Your task to perform on an android device: uninstall "Adobe Acrobat Reader: Edit PDF" Image 0: 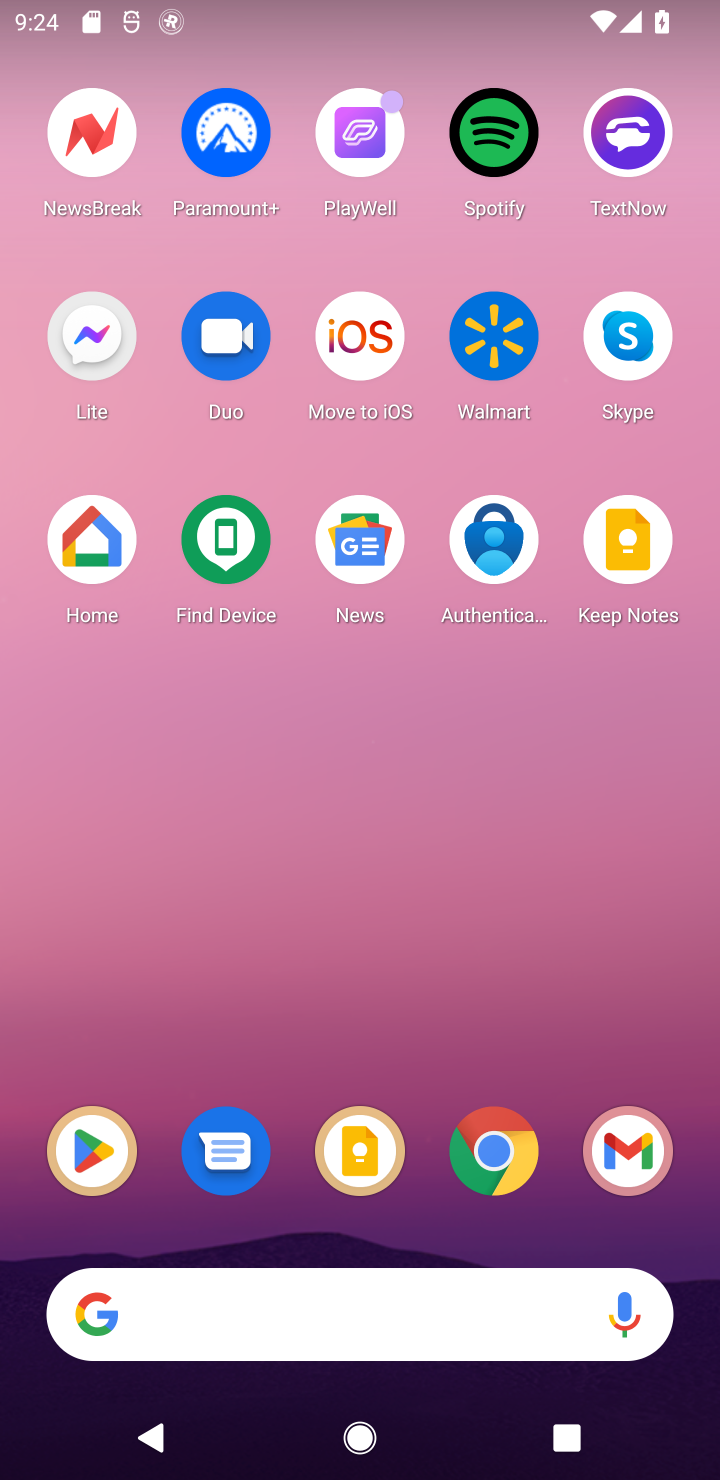
Step 0: click (103, 1127)
Your task to perform on an android device: uninstall "Adobe Acrobat Reader: Edit PDF" Image 1: 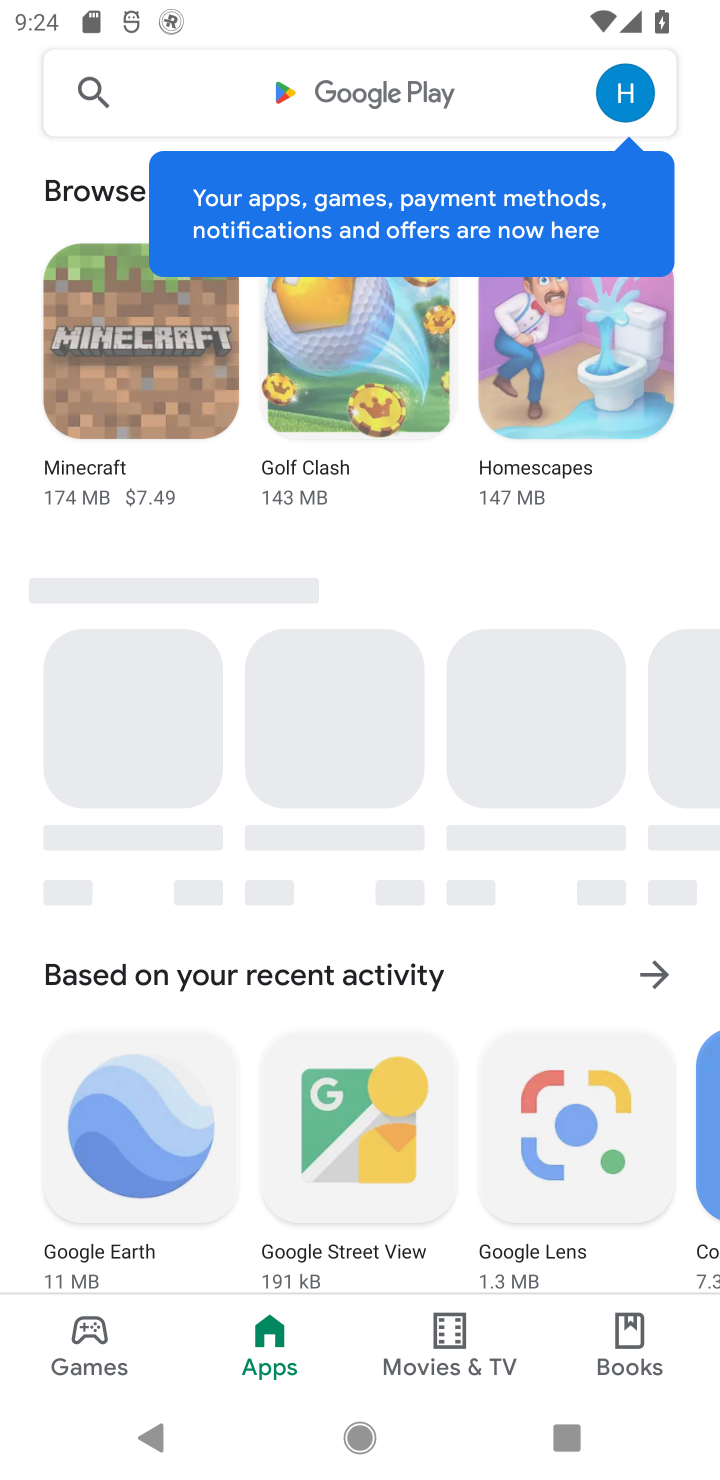
Step 1: click (465, 116)
Your task to perform on an android device: uninstall "Adobe Acrobat Reader: Edit PDF" Image 2: 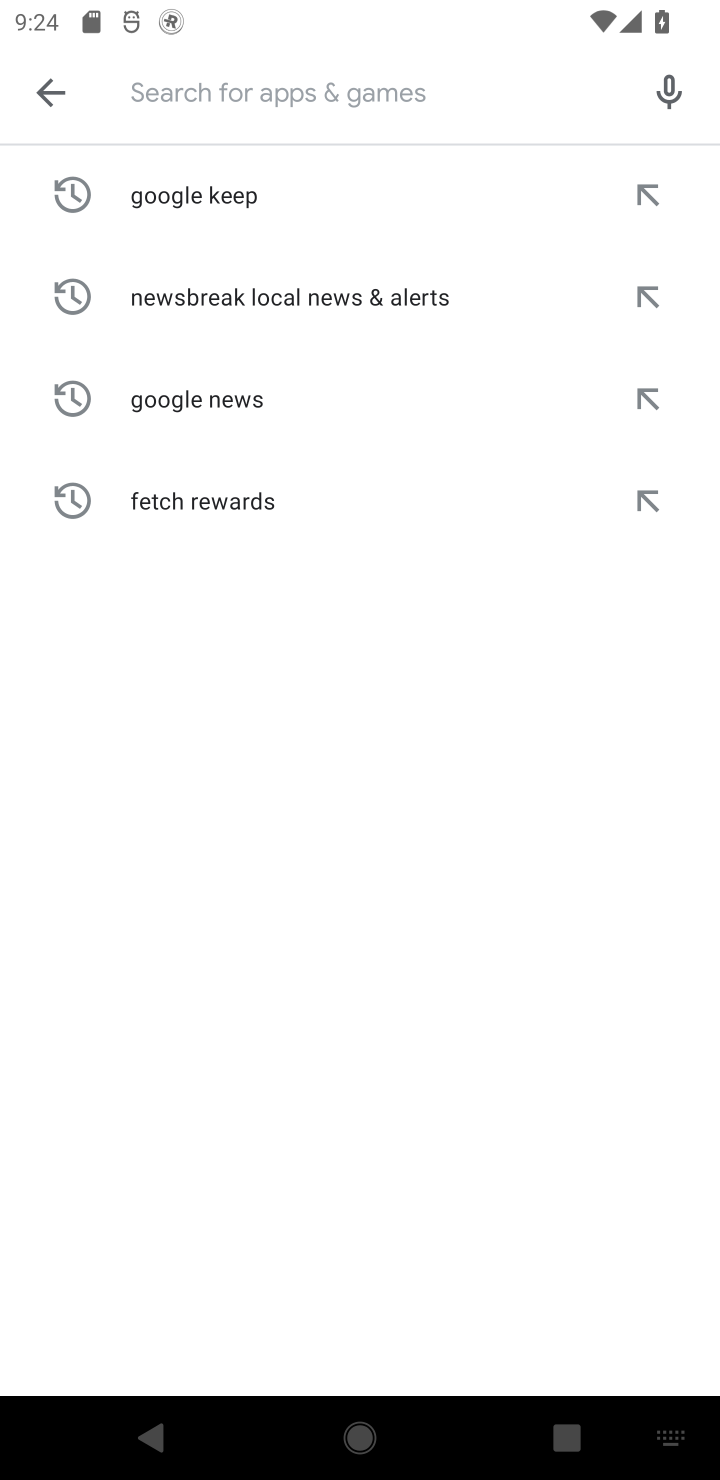
Step 2: type "Adobe Acrobat Reader: Edit PDF"
Your task to perform on an android device: uninstall "Adobe Acrobat Reader: Edit PDF" Image 3: 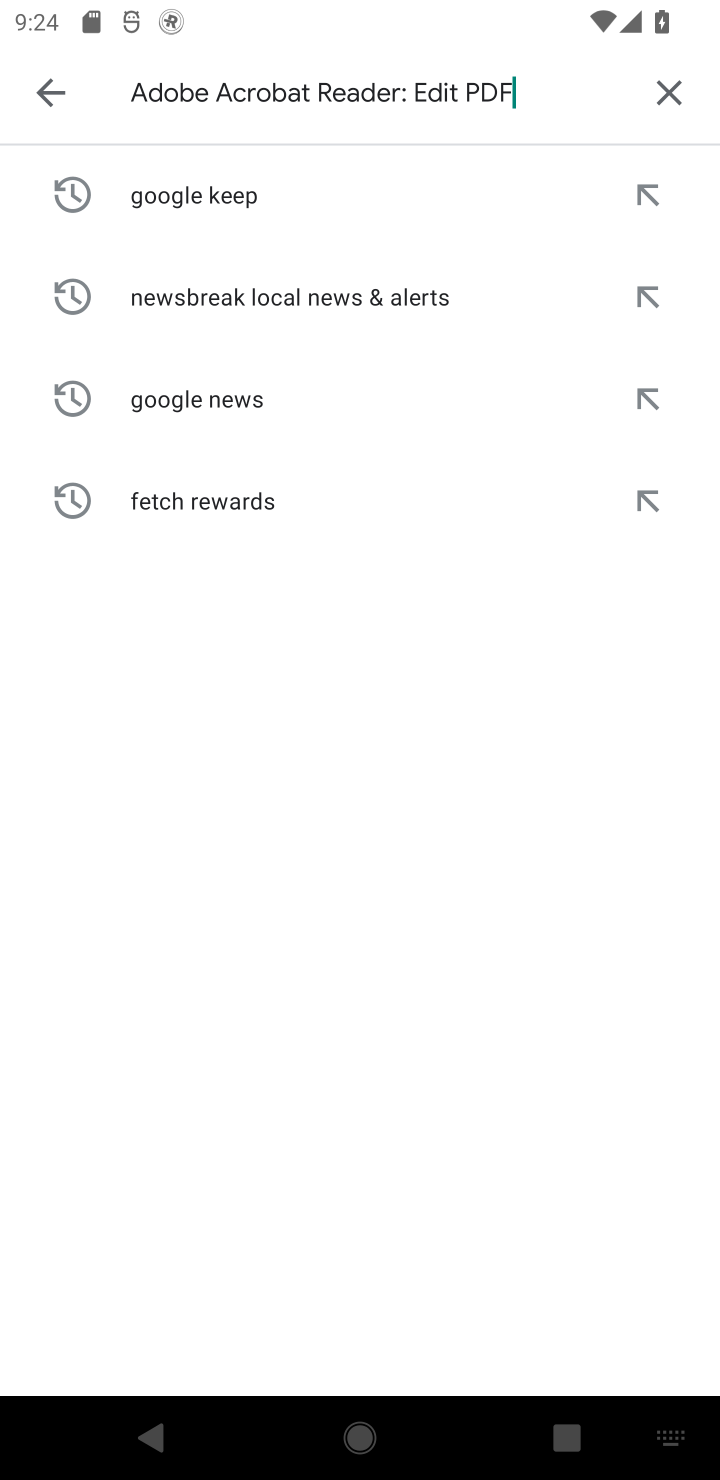
Step 3: type ""
Your task to perform on an android device: uninstall "Adobe Acrobat Reader: Edit PDF" Image 4: 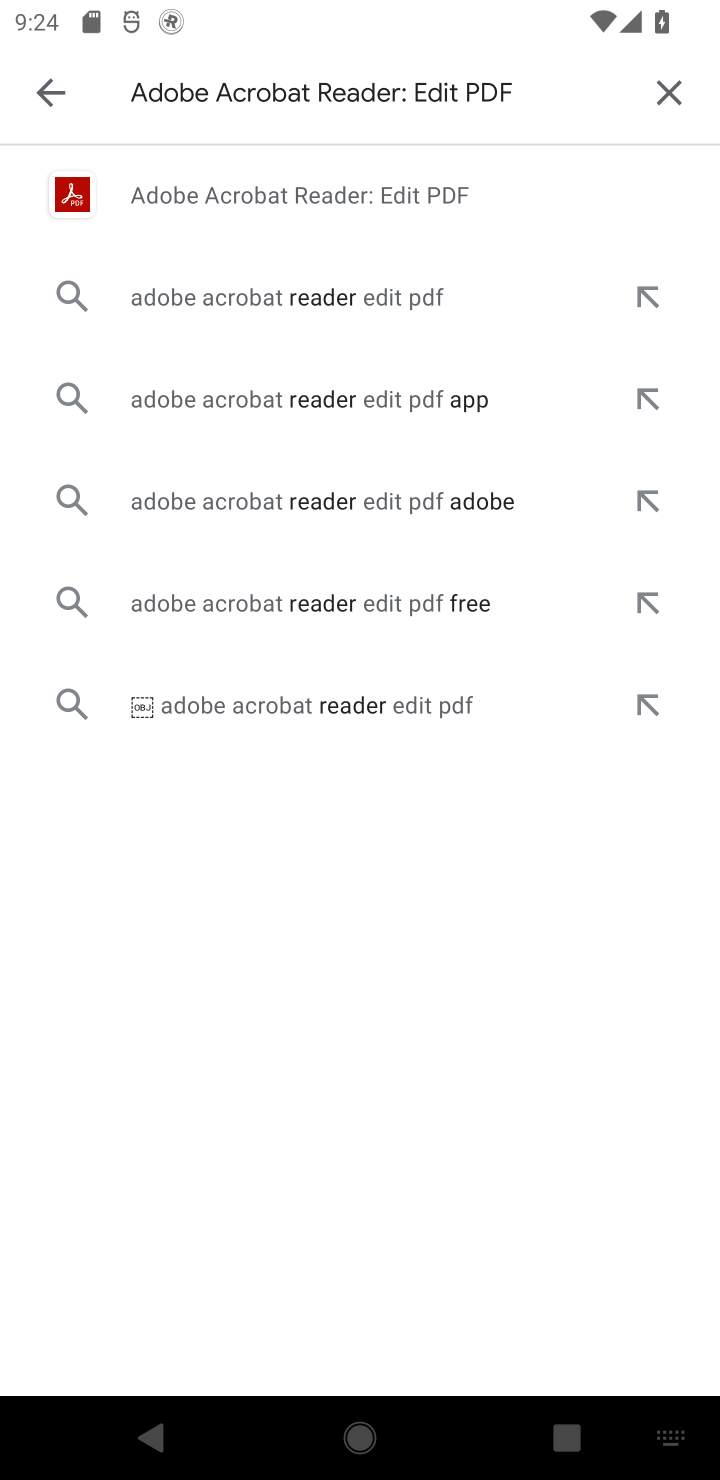
Step 4: click (357, 196)
Your task to perform on an android device: uninstall "Adobe Acrobat Reader: Edit PDF" Image 5: 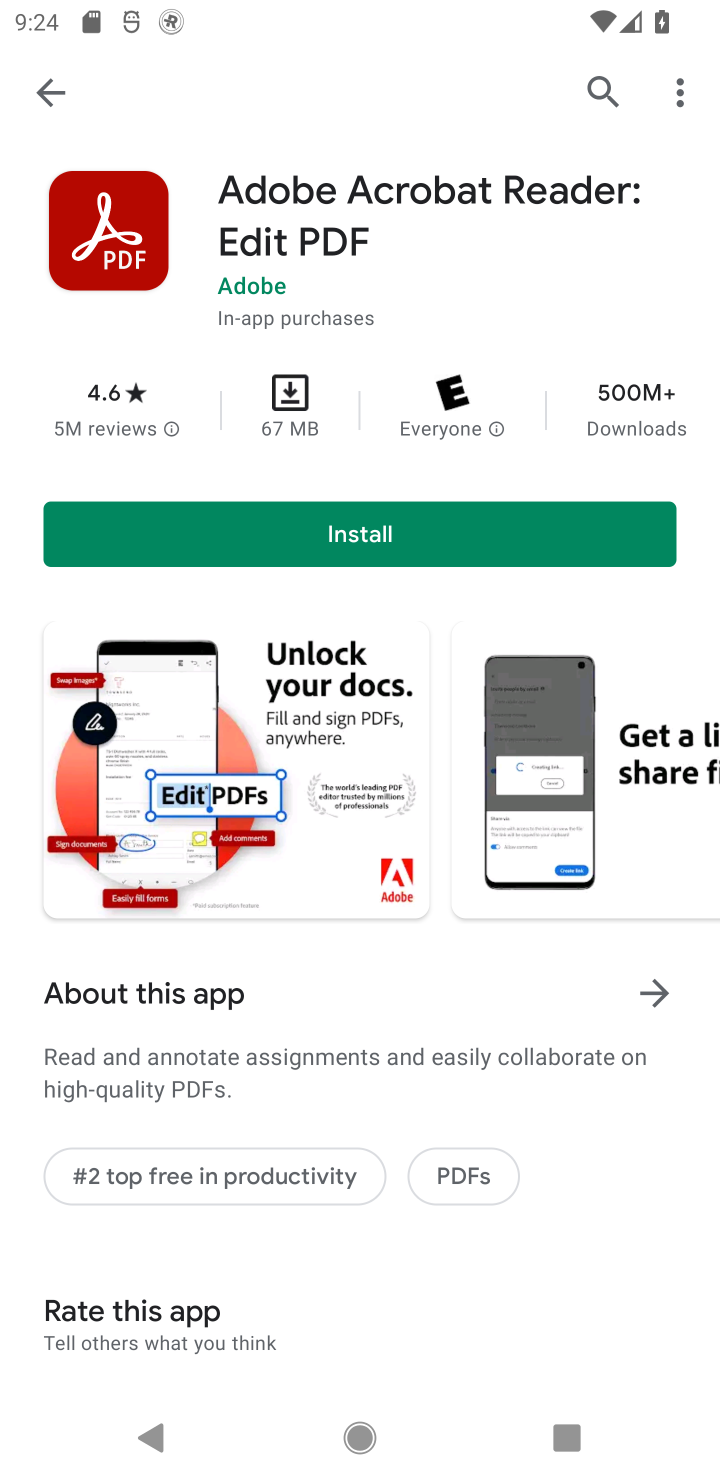
Step 5: task complete